Your task to perform on an android device: What's on my calendar today? Image 0: 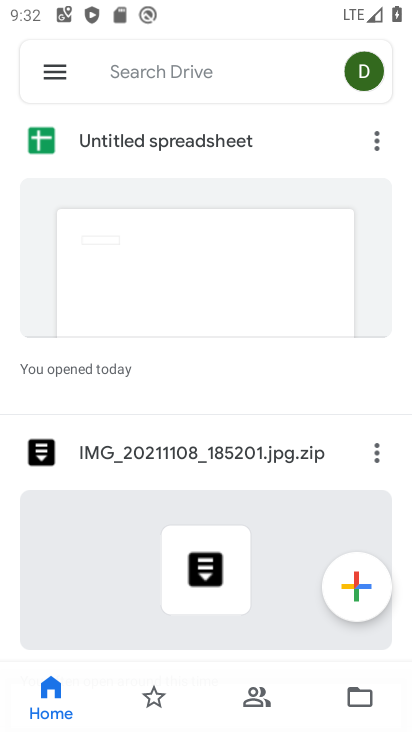
Step 0: press home button
Your task to perform on an android device: What's on my calendar today? Image 1: 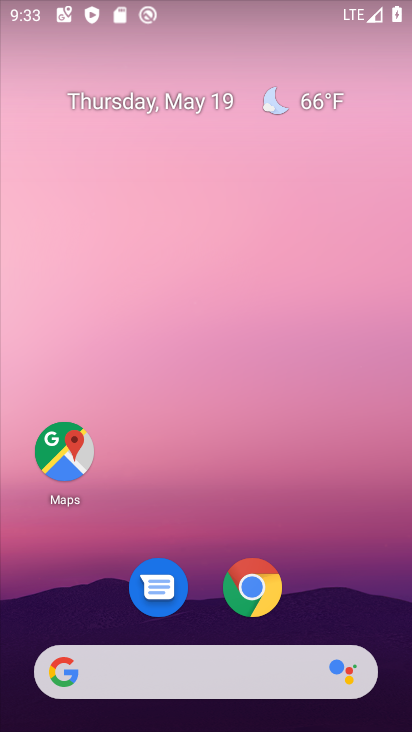
Step 1: drag from (260, 708) to (190, 170)
Your task to perform on an android device: What's on my calendar today? Image 2: 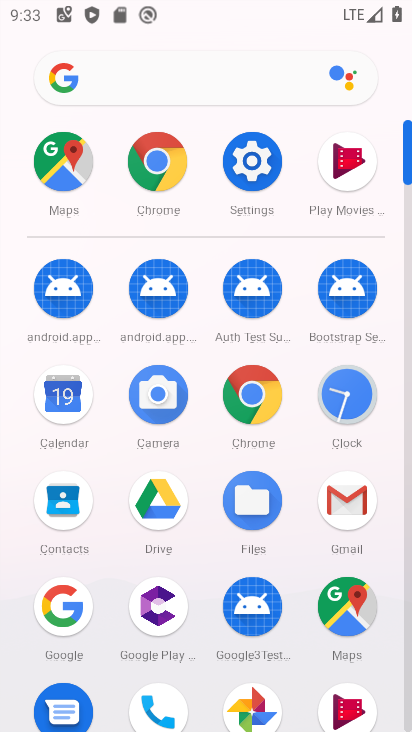
Step 2: click (67, 394)
Your task to perform on an android device: What's on my calendar today? Image 3: 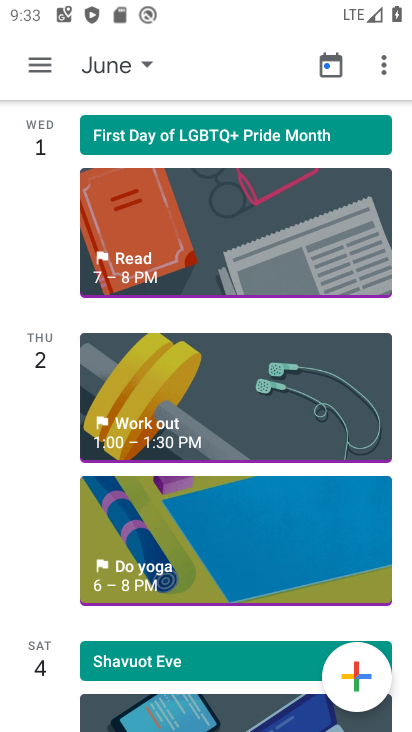
Step 3: click (33, 85)
Your task to perform on an android device: What's on my calendar today? Image 4: 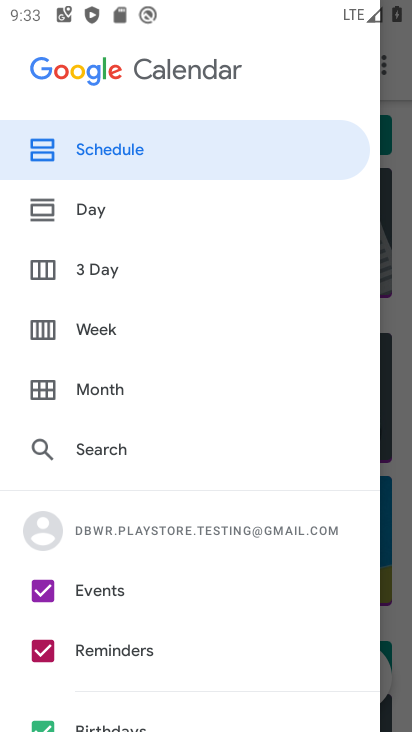
Step 4: click (95, 385)
Your task to perform on an android device: What's on my calendar today? Image 5: 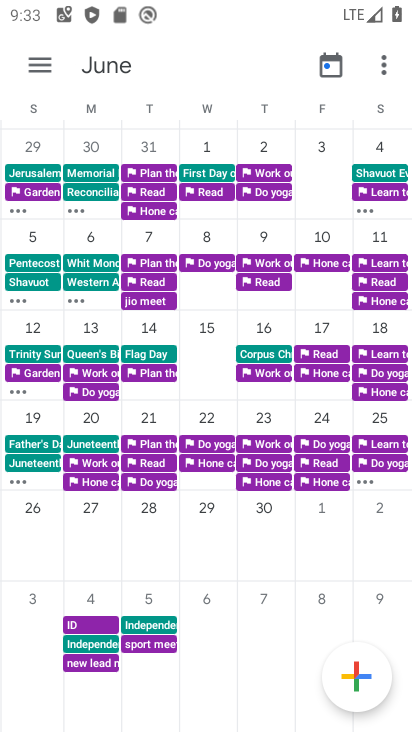
Step 5: click (100, 390)
Your task to perform on an android device: What's on my calendar today? Image 6: 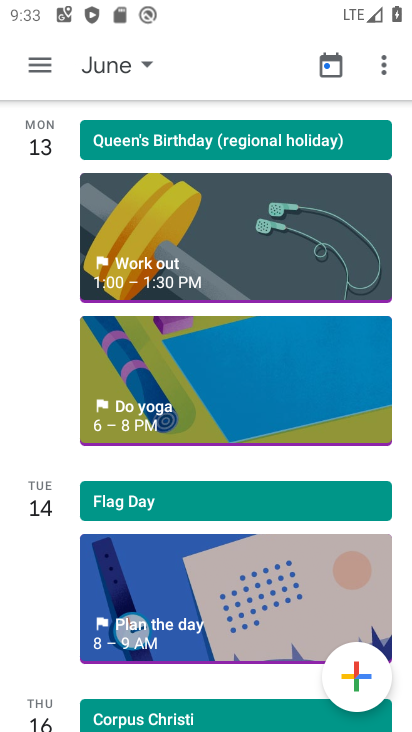
Step 6: drag from (88, 368) to (189, 369)
Your task to perform on an android device: What's on my calendar today? Image 7: 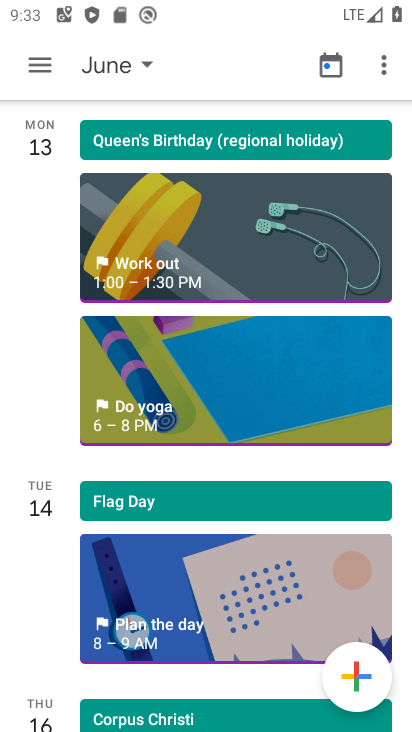
Step 7: click (21, 69)
Your task to perform on an android device: What's on my calendar today? Image 8: 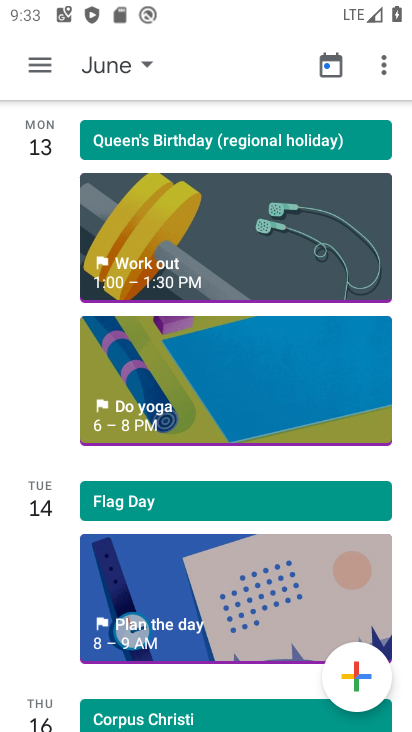
Step 8: click (46, 65)
Your task to perform on an android device: What's on my calendar today? Image 9: 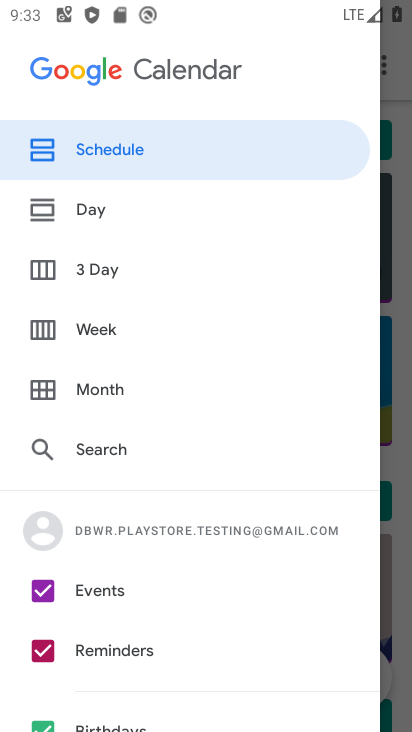
Step 9: click (119, 386)
Your task to perform on an android device: What's on my calendar today? Image 10: 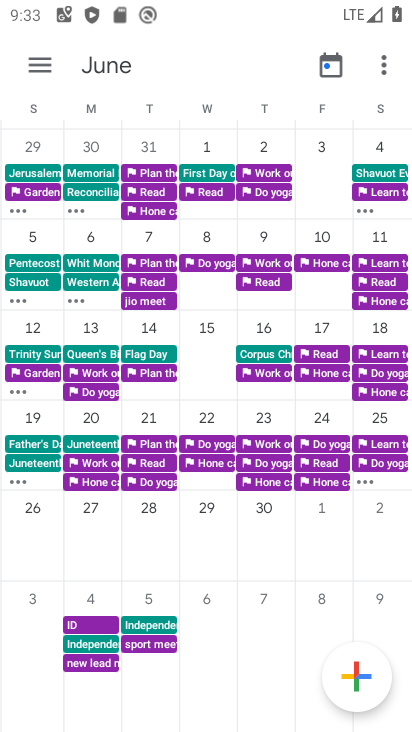
Step 10: drag from (30, 331) to (411, 371)
Your task to perform on an android device: What's on my calendar today? Image 11: 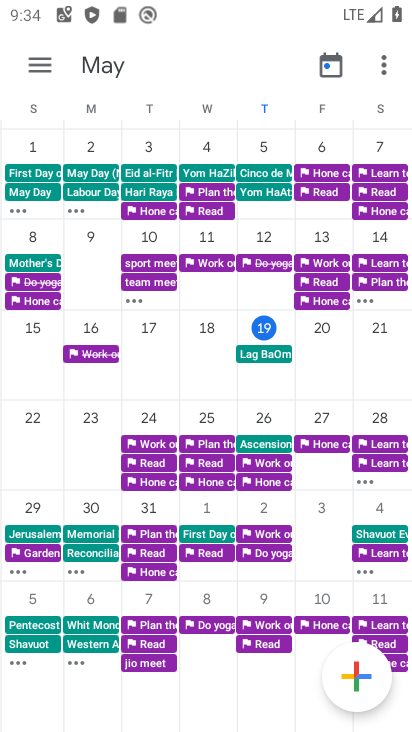
Step 11: click (260, 336)
Your task to perform on an android device: What's on my calendar today? Image 12: 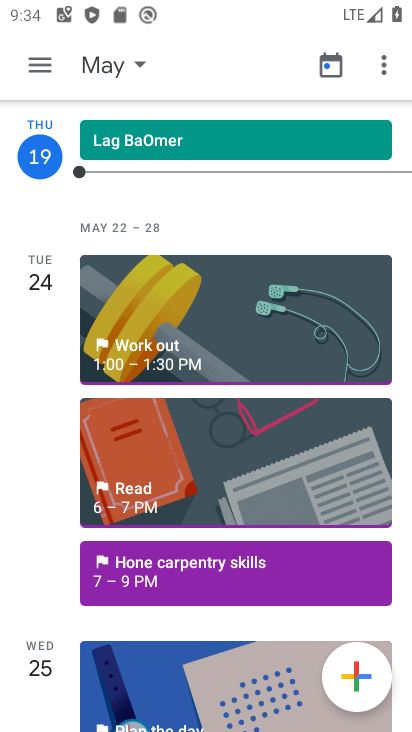
Step 12: task complete